Your task to perform on an android device: make emails show in primary in the gmail app Image 0: 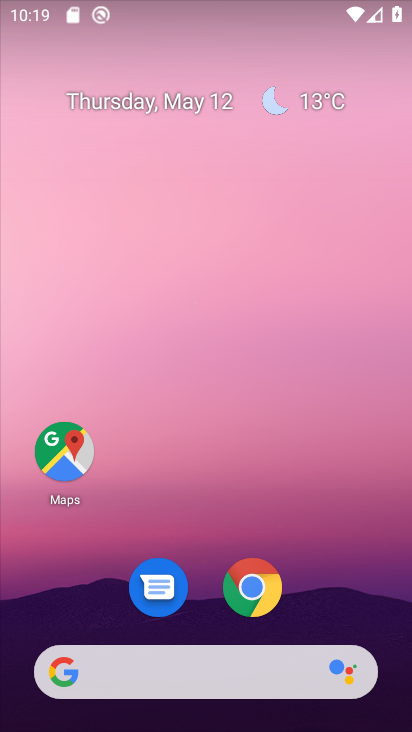
Step 0: drag from (200, 601) to (273, 125)
Your task to perform on an android device: make emails show in primary in the gmail app Image 1: 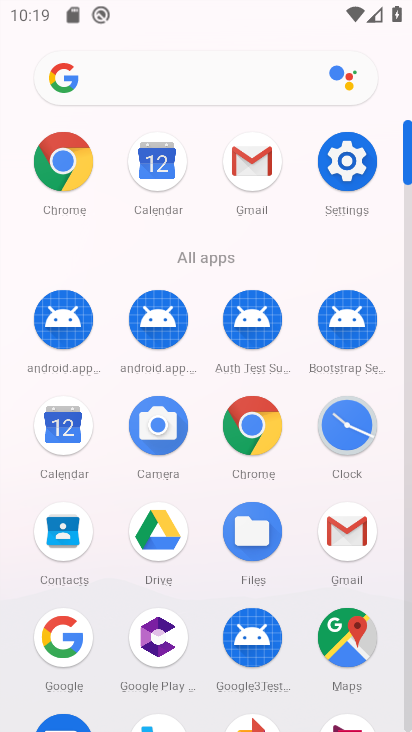
Step 1: click (258, 154)
Your task to perform on an android device: make emails show in primary in the gmail app Image 2: 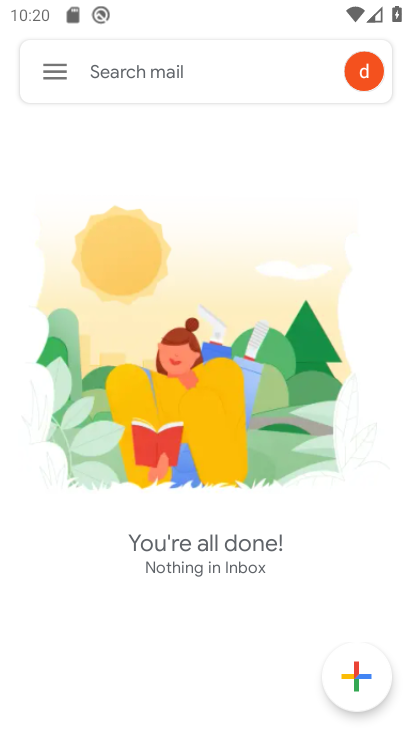
Step 2: click (55, 75)
Your task to perform on an android device: make emails show in primary in the gmail app Image 3: 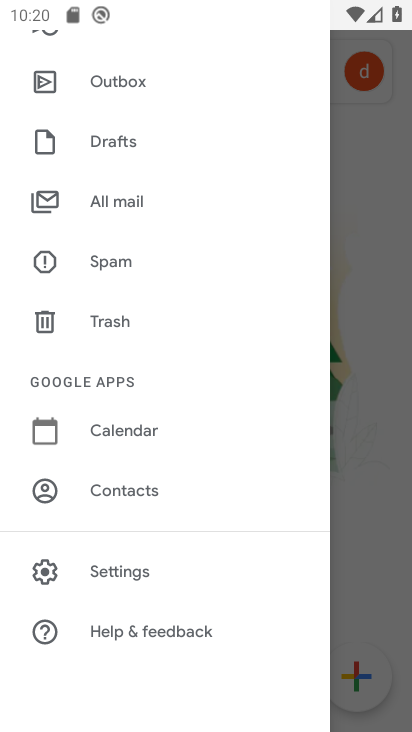
Step 3: click (103, 567)
Your task to perform on an android device: make emails show in primary in the gmail app Image 4: 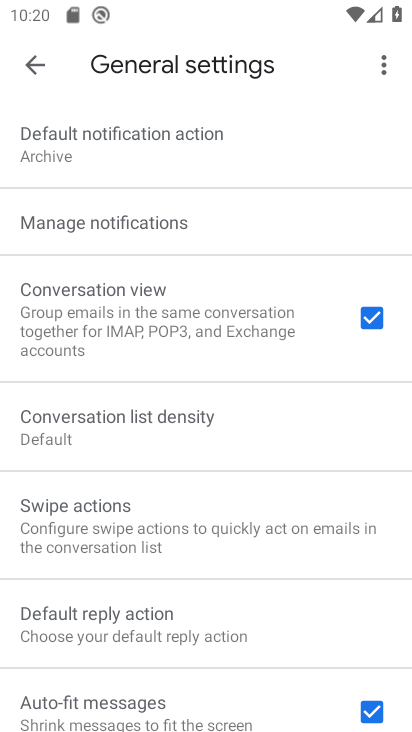
Step 4: click (31, 71)
Your task to perform on an android device: make emails show in primary in the gmail app Image 5: 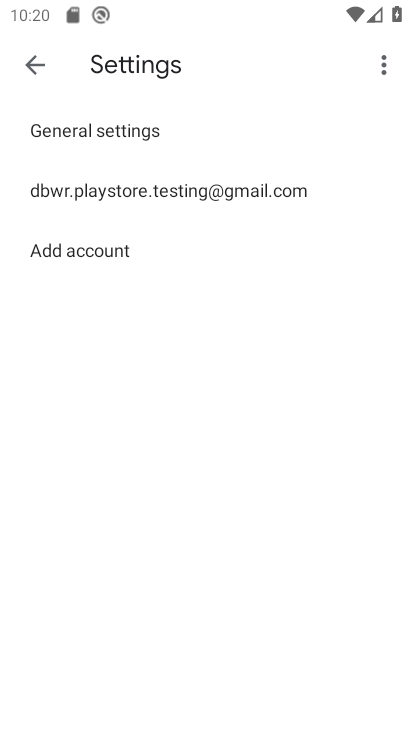
Step 5: click (147, 193)
Your task to perform on an android device: make emails show in primary in the gmail app Image 6: 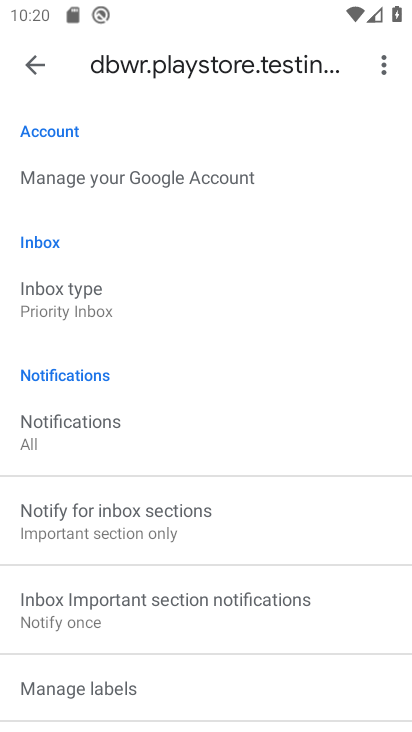
Step 6: click (128, 301)
Your task to perform on an android device: make emails show in primary in the gmail app Image 7: 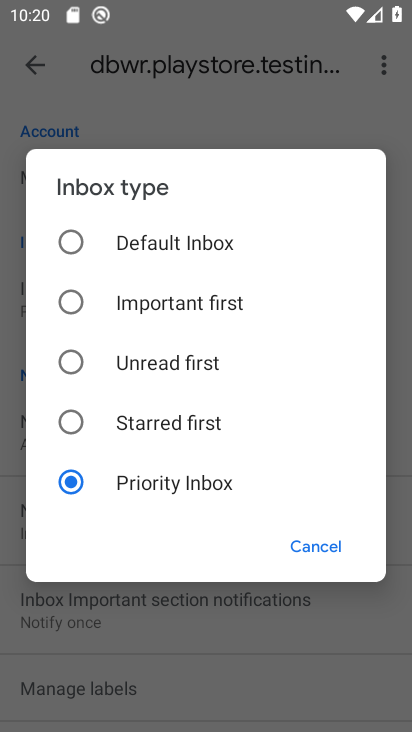
Step 7: click (71, 309)
Your task to perform on an android device: make emails show in primary in the gmail app Image 8: 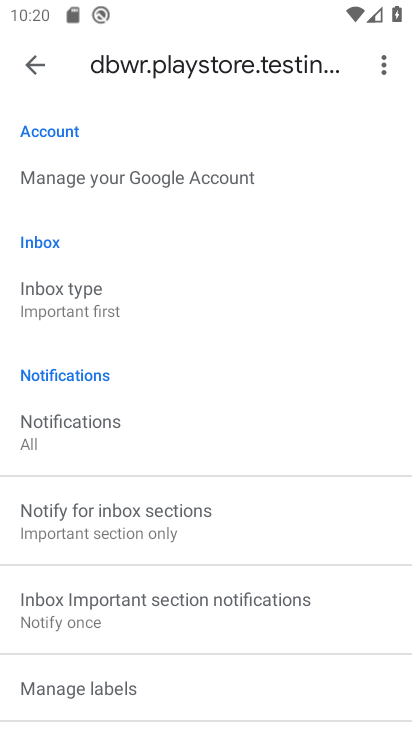
Step 8: task complete